Your task to perform on an android device: change your default location settings in chrome Image 0: 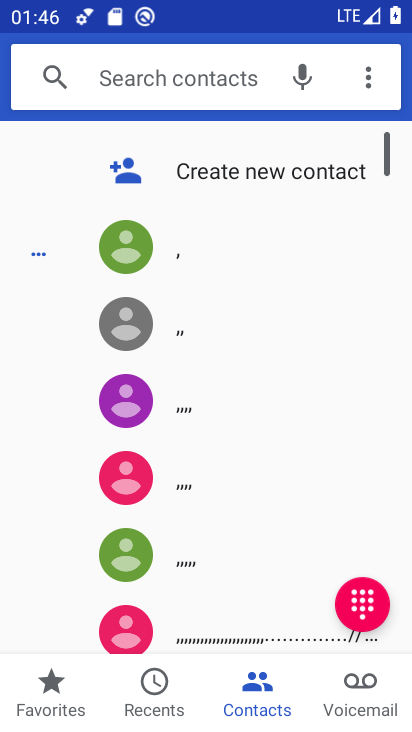
Step 0: press home button
Your task to perform on an android device: change your default location settings in chrome Image 1: 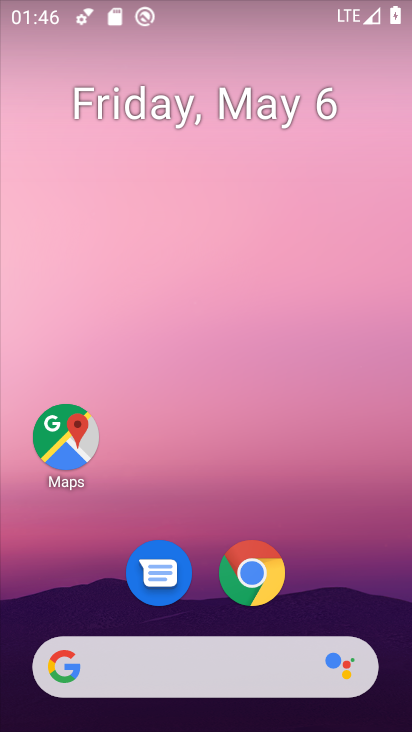
Step 1: drag from (335, 597) to (328, 226)
Your task to perform on an android device: change your default location settings in chrome Image 2: 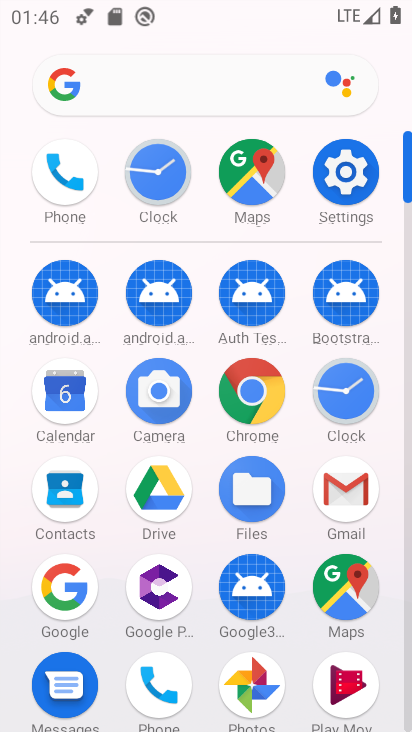
Step 2: click (233, 403)
Your task to perform on an android device: change your default location settings in chrome Image 3: 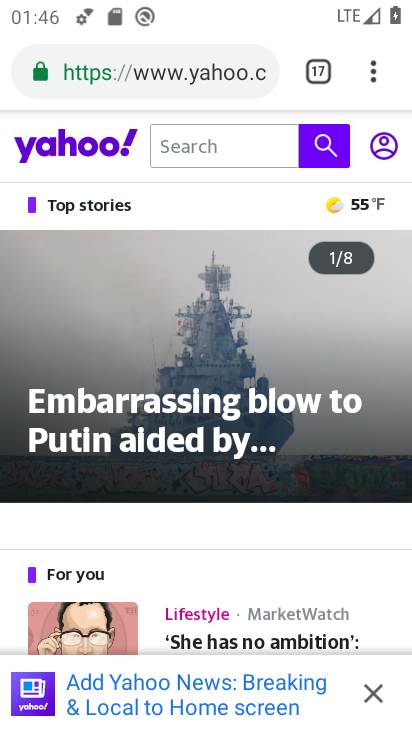
Step 3: click (349, 76)
Your task to perform on an android device: change your default location settings in chrome Image 4: 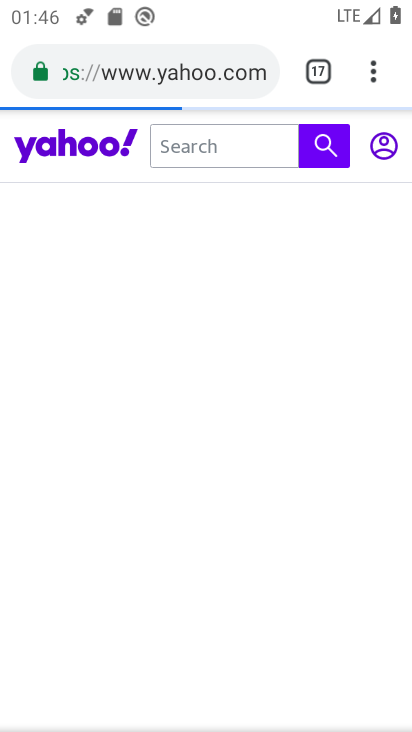
Step 4: click (368, 57)
Your task to perform on an android device: change your default location settings in chrome Image 5: 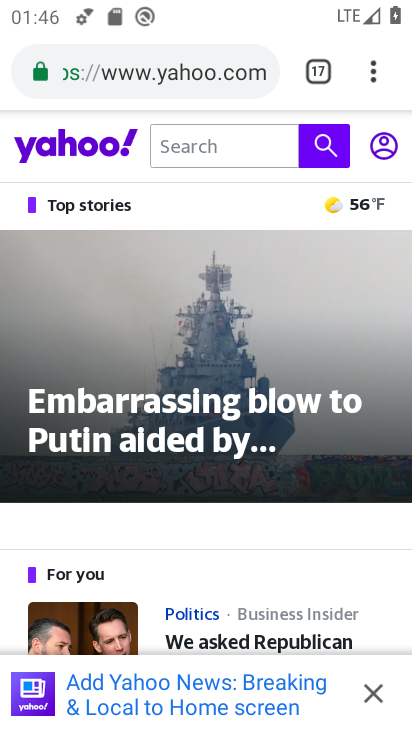
Step 5: click (355, 73)
Your task to perform on an android device: change your default location settings in chrome Image 6: 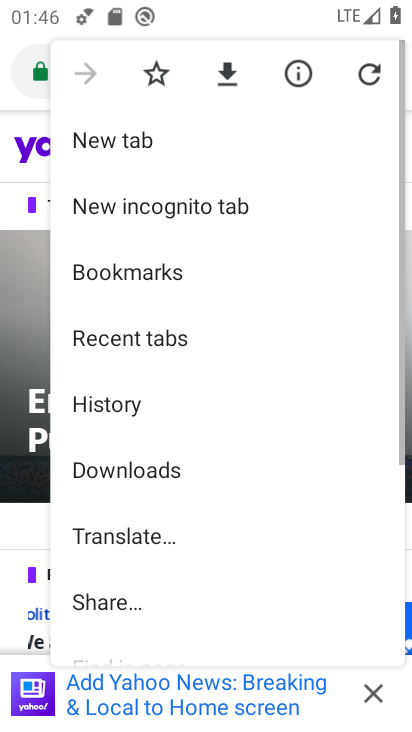
Step 6: drag from (201, 609) to (244, 200)
Your task to perform on an android device: change your default location settings in chrome Image 7: 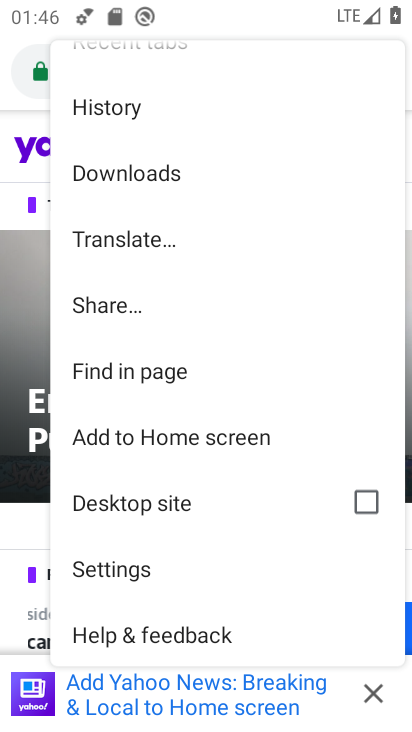
Step 7: click (108, 579)
Your task to perform on an android device: change your default location settings in chrome Image 8: 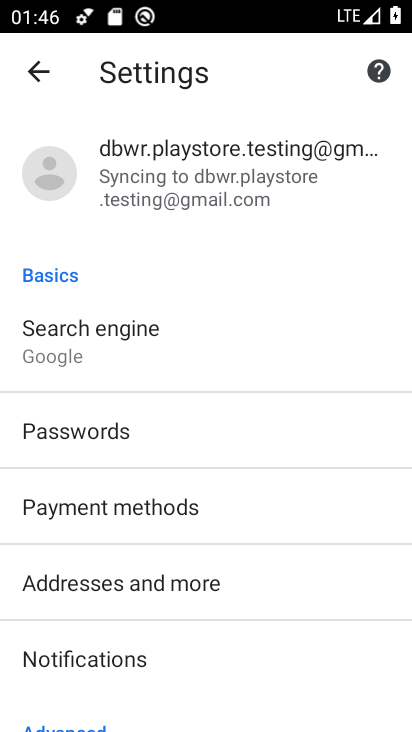
Step 8: drag from (183, 622) to (218, 500)
Your task to perform on an android device: change your default location settings in chrome Image 9: 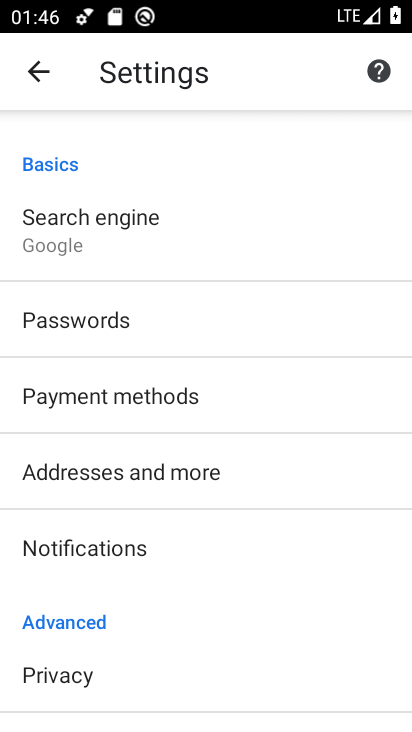
Step 9: drag from (194, 648) to (241, 327)
Your task to perform on an android device: change your default location settings in chrome Image 10: 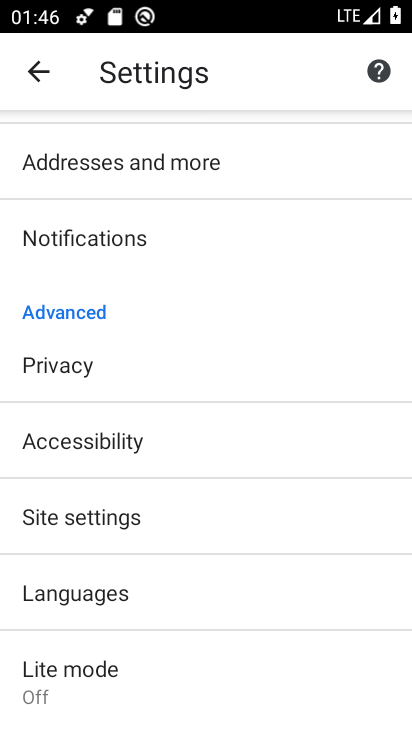
Step 10: drag from (126, 666) to (241, 312)
Your task to perform on an android device: change your default location settings in chrome Image 11: 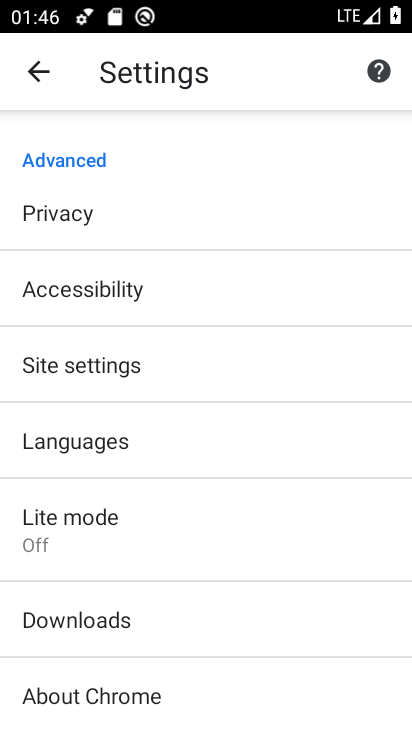
Step 11: click (121, 366)
Your task to perform on an android device: change your default location settings in chrome Image 12: 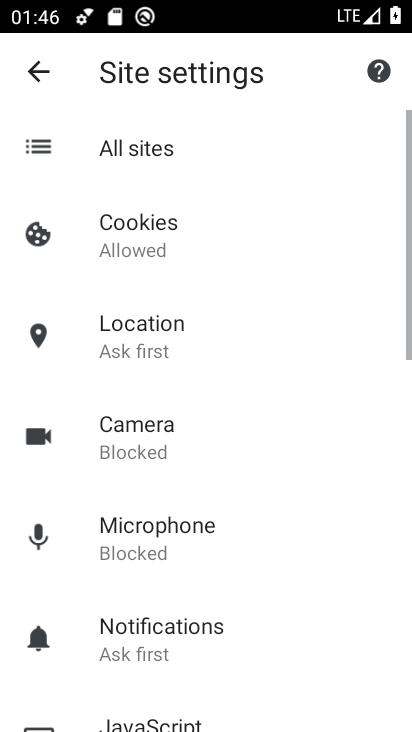
Step 12: click (138, 331)
Your task to perform on an android device: change your default location settings in chrome Image 13: 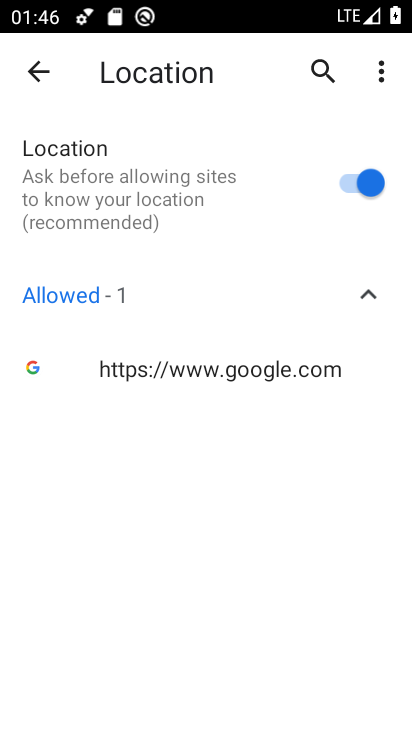
Step 13: click (354, 185)
Your task to perform on an android device: change your default location settings in chrome Image 14: 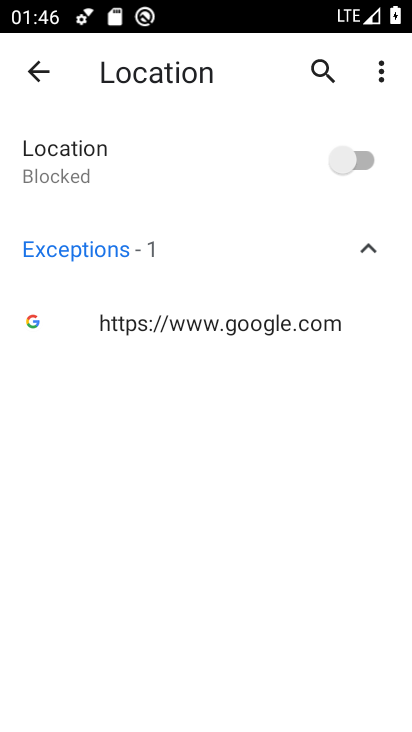
Step 14: task complete